Your task to perform on an android device: Open the web browser Image 0: 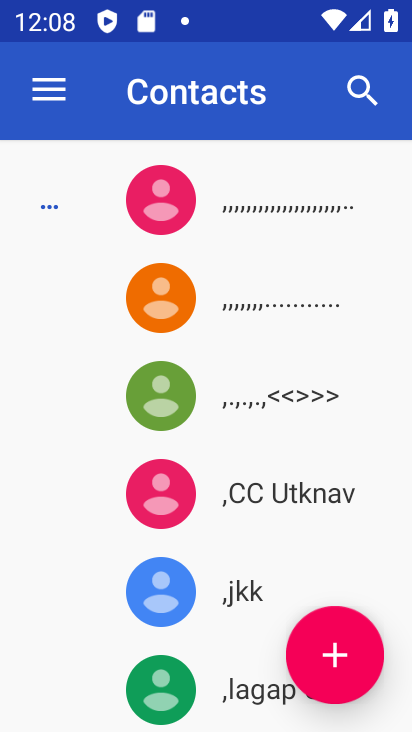
Step 0: press home button
Your task to perform on an android device: Open the web browser Image 1: 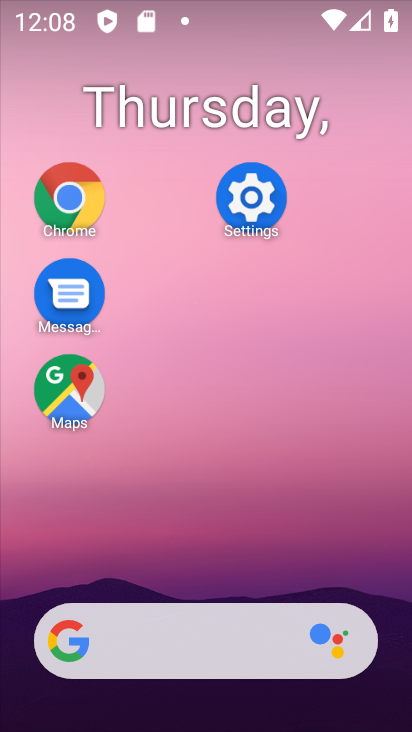
Step 1: drag from (262, 353) to (177, 117)
Your task to perform on an android device: Open the web browser Image 2: 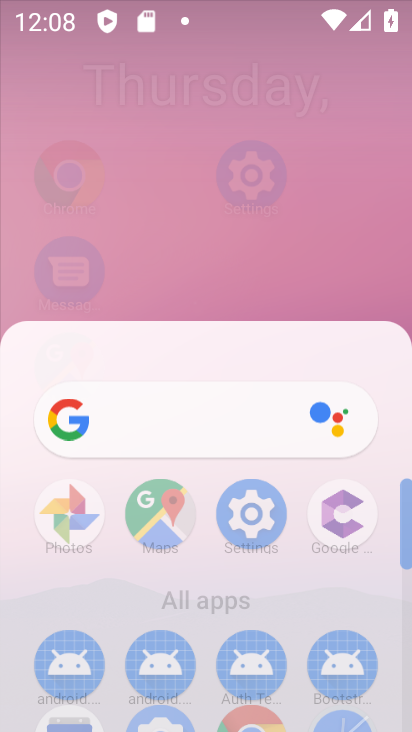
Step 2: drag from (297, 658) to (154, 161)
Your task to perform on an android device: Open the web browser Image 3: 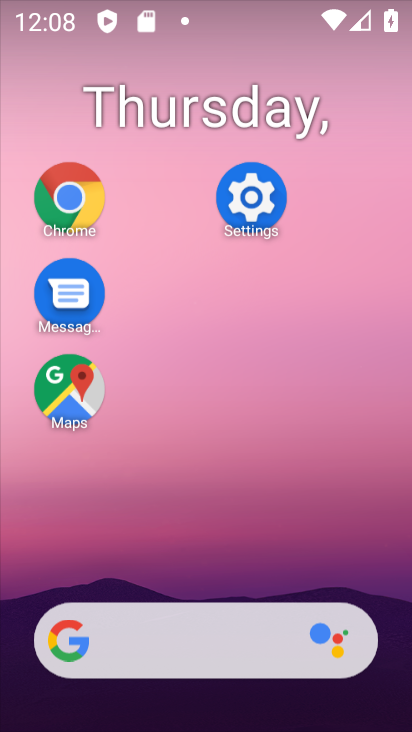
Step 3: drag from (297, 567) to (169, 40)
Your task to perform on an android device: Open the web browser Image 4: 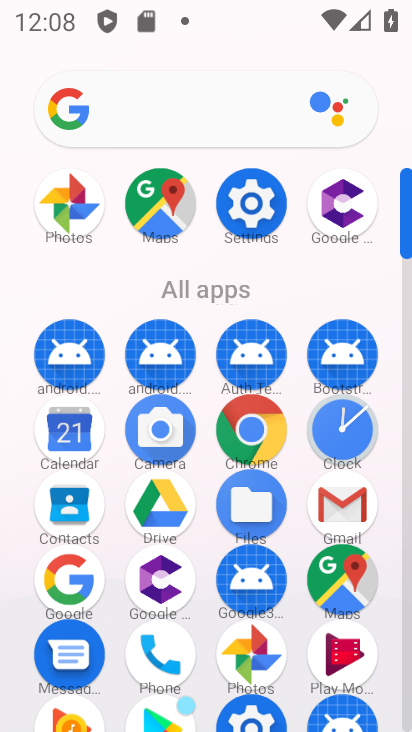
Step 4: drag from (225, 136) to (212, 0)
Your task to perform on an android device: Open the web browser Image 5: 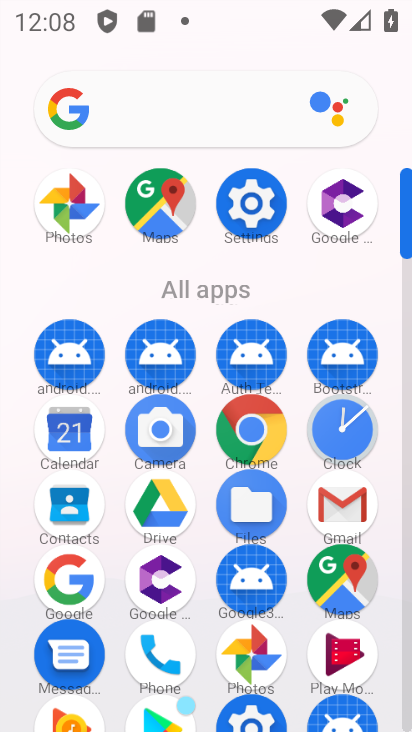
Step 5: click (250, 441)
Your task to perform on an android device: Open the web browser Image 6: 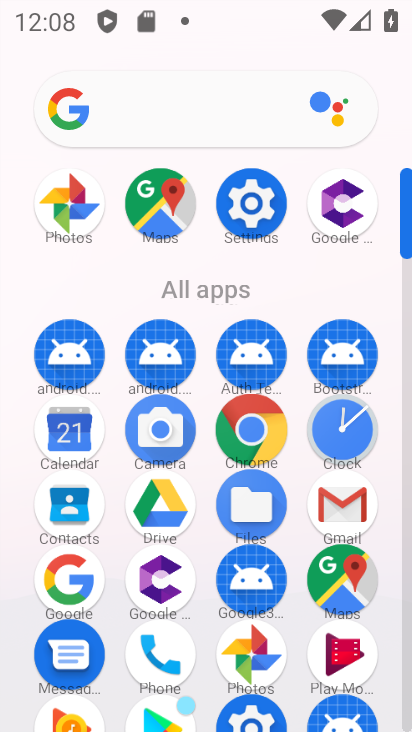
Step 6: click (250, 441)
Your task to perform on an android device: Open the web browser Image 7: 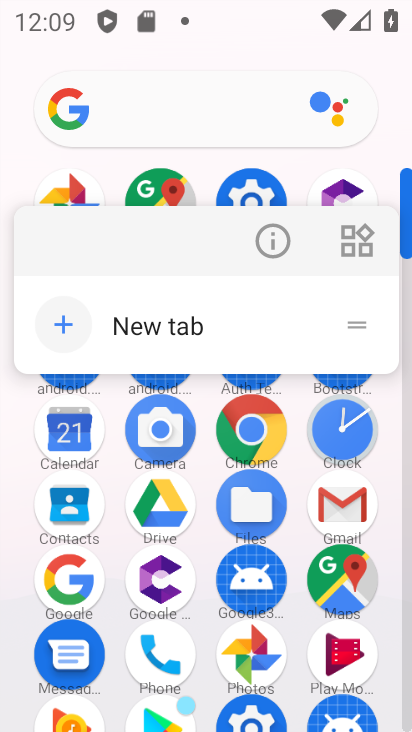
Step 7: click (238, 422)
Your task to perform on an android device: Open the web browser Image 8: 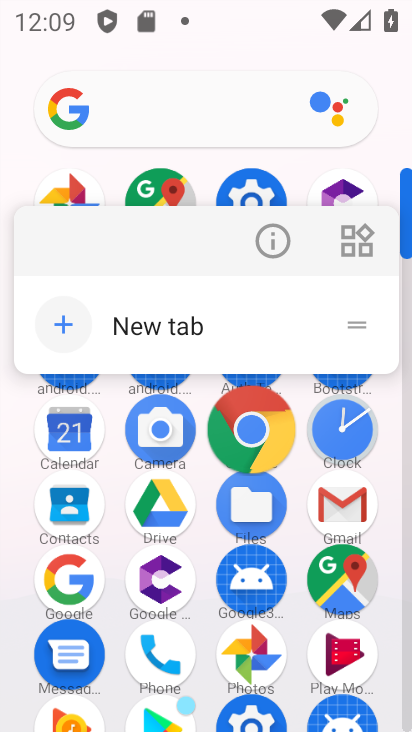
Step 8: click (238, 422)
Your task to perform on an android device: Open the web browser Image 9: 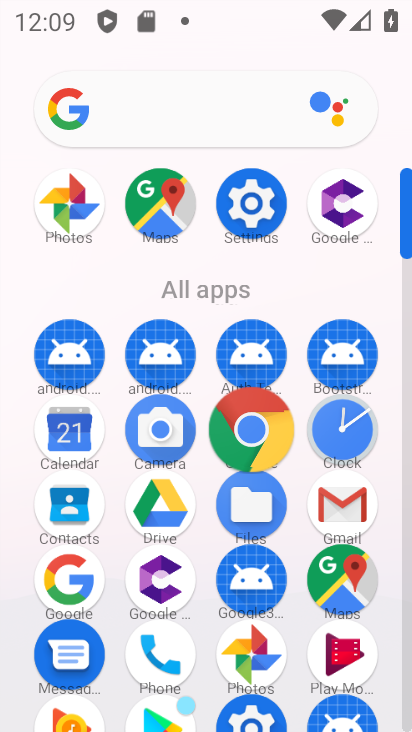
Step 9: click (239, 421)
Your task to perform on an android device: Open the web browser Image 10: 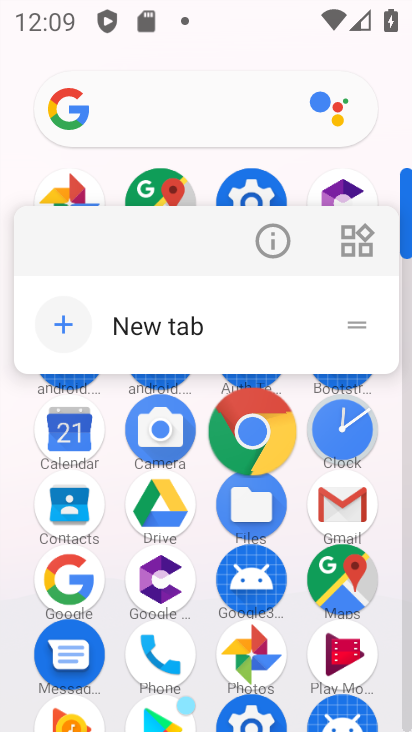
Step 10: click (240, 426)
Your task to perform on an android device: Open the web browser Image 11: 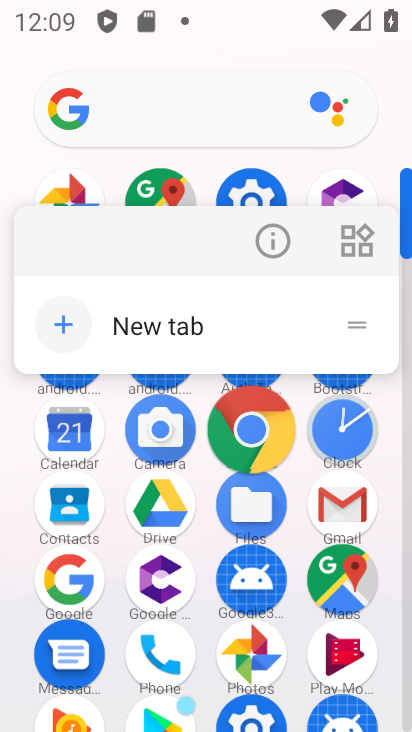
Step 11: click (241, 427)
Your task to perform on an android device: Open the web browser Image 12: 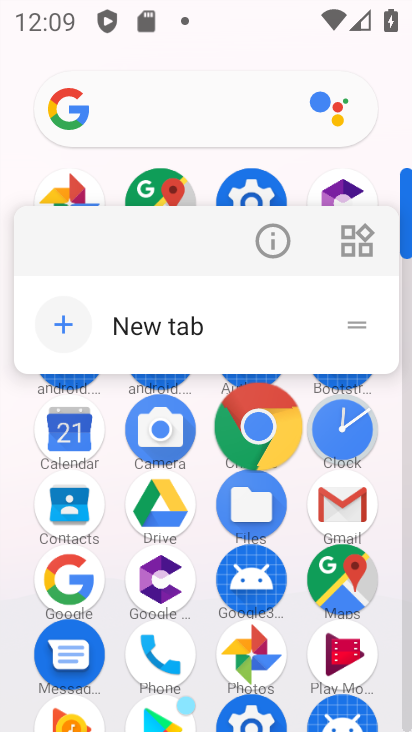
Step 12: click (248, 422)
Your task to perform on an android device: Open the web browser Image 13: 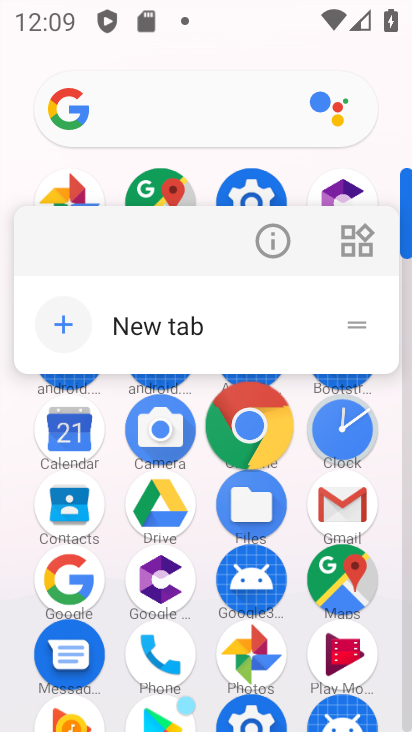
Step 13: click (247, 417)
Your task to perform on an android device: Open the web browser Image 14: 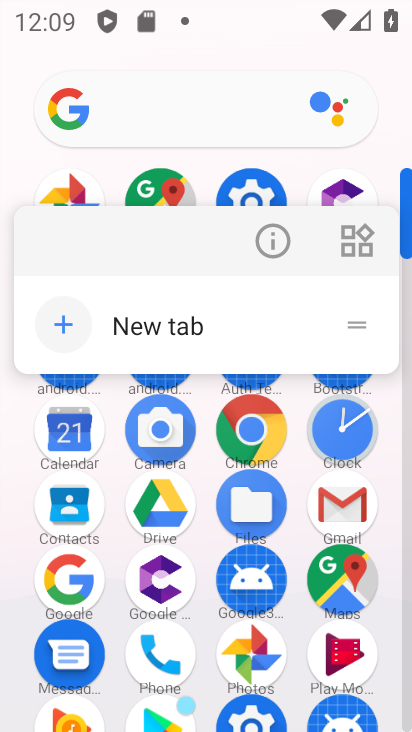
Step 14: click (243, 426)
Your task to perform on an android device: Open the web browser Image 15: 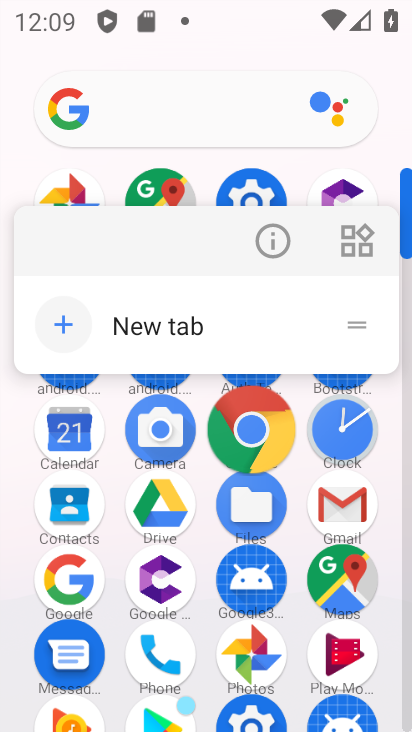
Step 15: click (246, 420)
Your task to perform on an android device: Open the web browser Image 16: 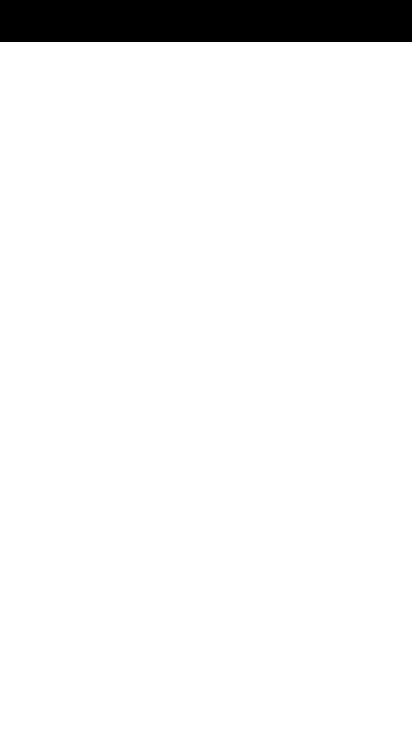
Step 16: click (249, 421)
Your task to perform on an android device: Open the web browser Image 17: 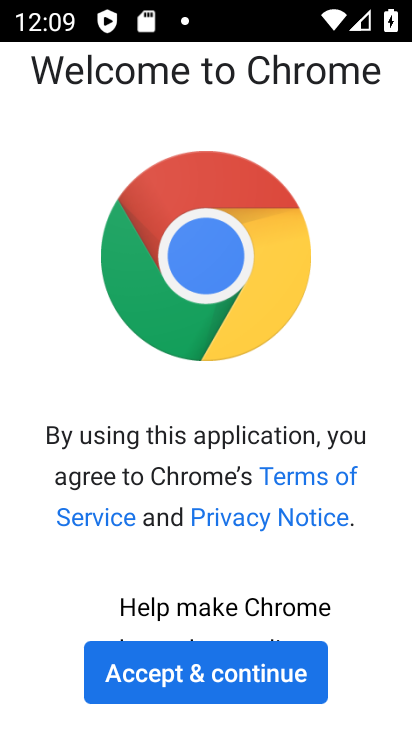
Step 17: click (205, 660)
Your task to perform on an android device: Open the web browser Image 18: 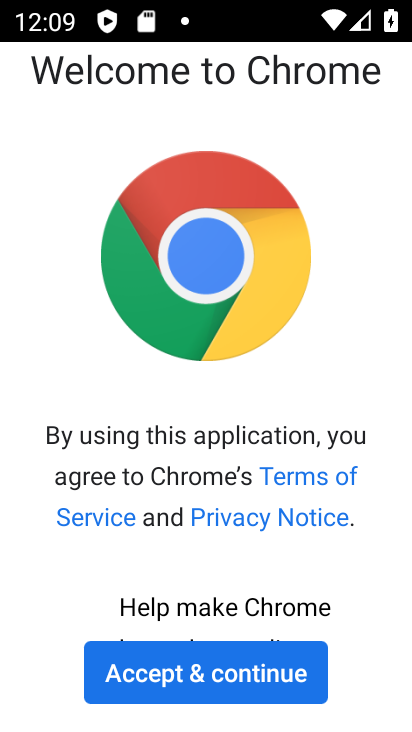
Step 18: click (212, 673)
Your task to perform on an android device: Open the web browser Image 19: 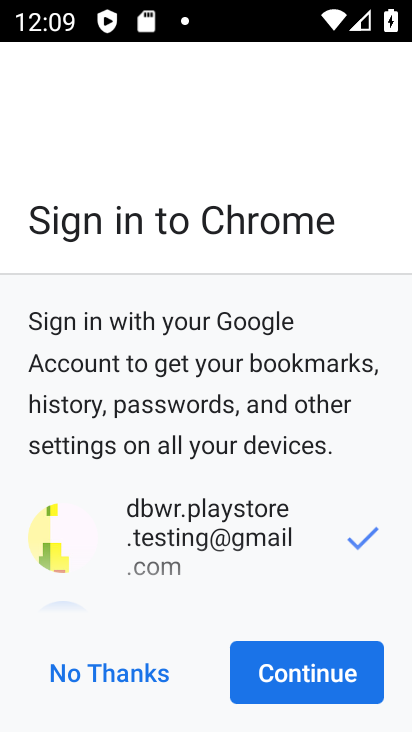
Step 19: click (305, 669)
Your task to perform on an android device: Open the web browser Image 20: 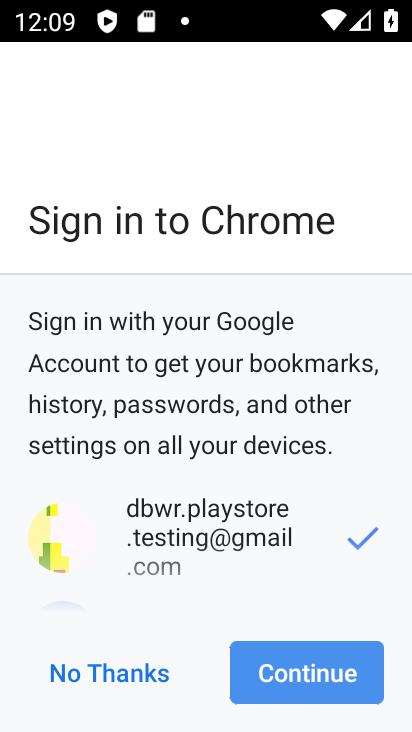
Step 20: click (321, 687)
Your task to perform on an android device: Open the web browser Image 21: 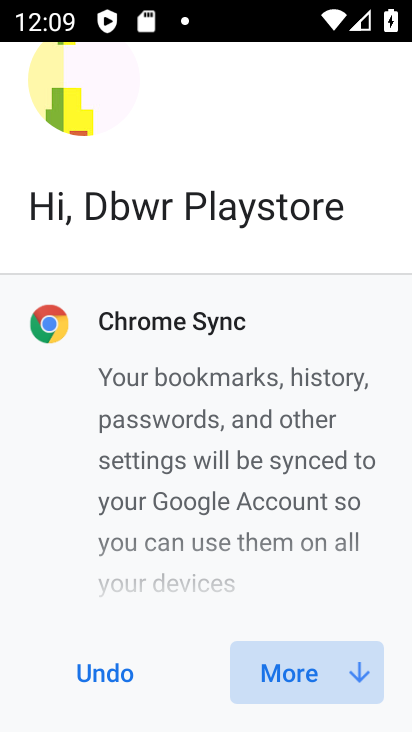
Step 21: click (329, 657)
Your task to perform on an android device: Open the web browser Image 22: 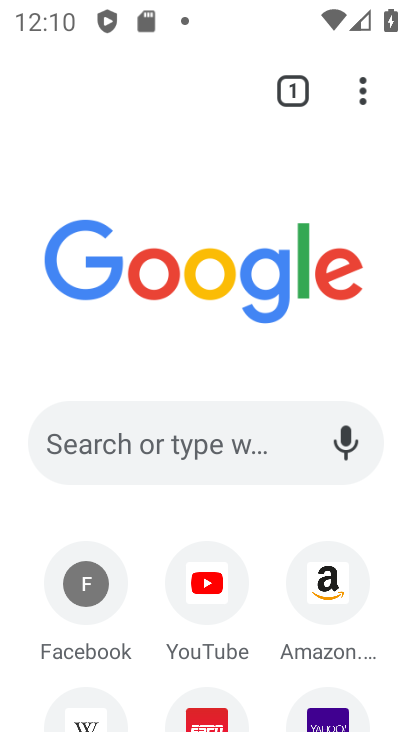
Step 22: task complete